Your task to perform on an android device: Open eBay Image 0: 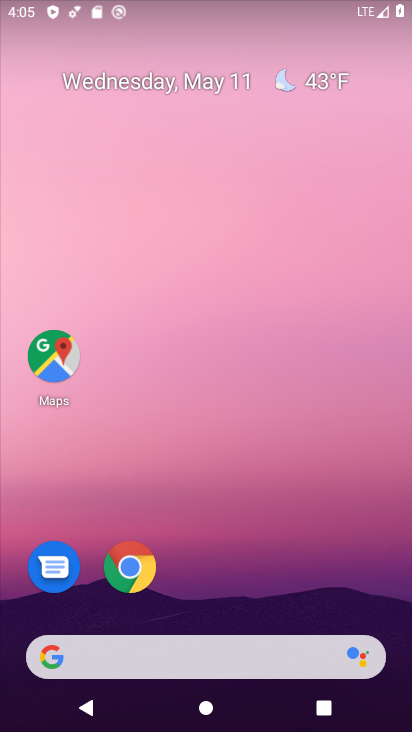
Step 0: click (118, 551)
Your task to perform on an android device: Open eBay Image 1: 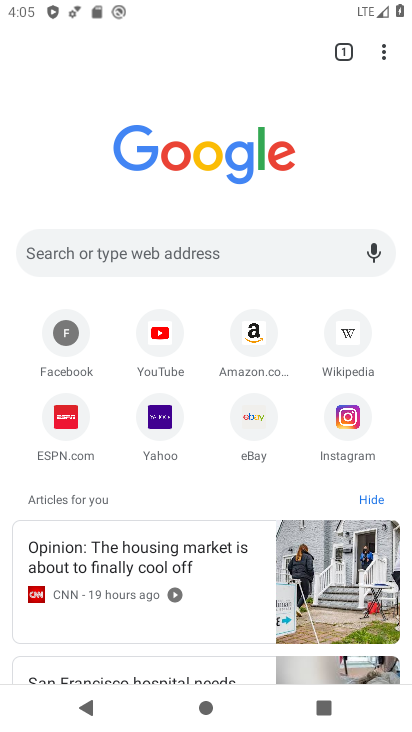
Step 1: click (248, 422)
Your task to perform on an android device: Open eBay Image 2: 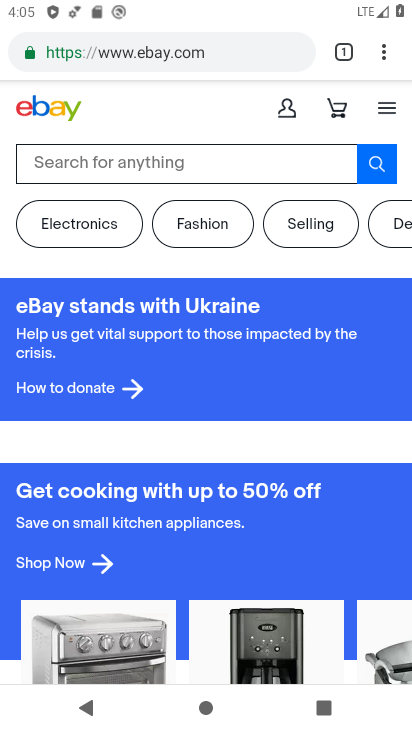
Step 2: task complete